Your task to perform on an android device: turn on sleep mode Image 0: 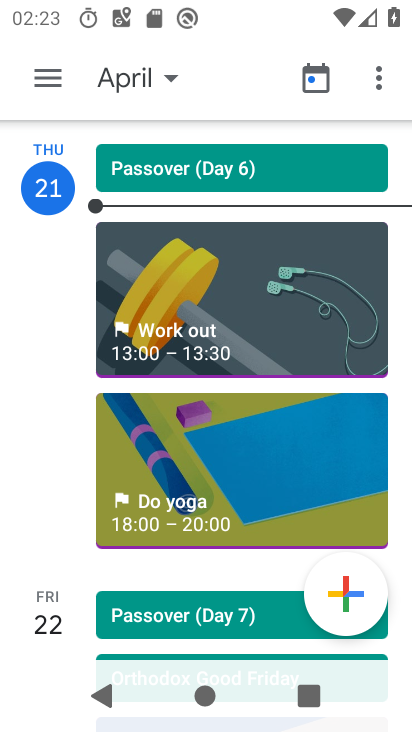
Step 0: drag from (210, 531) to (232, 292)
Your task to perform on an android device: turn on sleep mode Image 1: 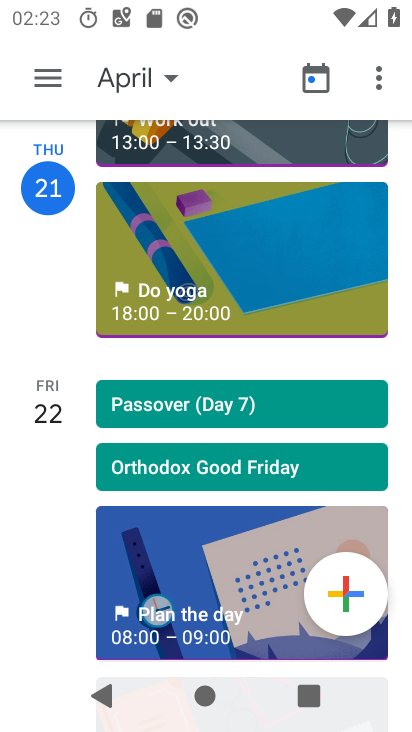
Step 1: drag from (228, 361) to (255, 125)
Your task to perform on an android device: turn on sleep mode Image 2: 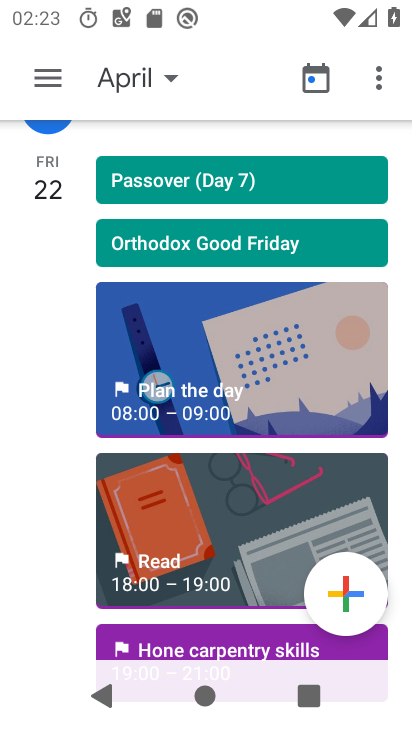
Step 2: drag from (230, 615) to (268, 233)
Your task to perform on an android device: turn on sleep mode Image 3: 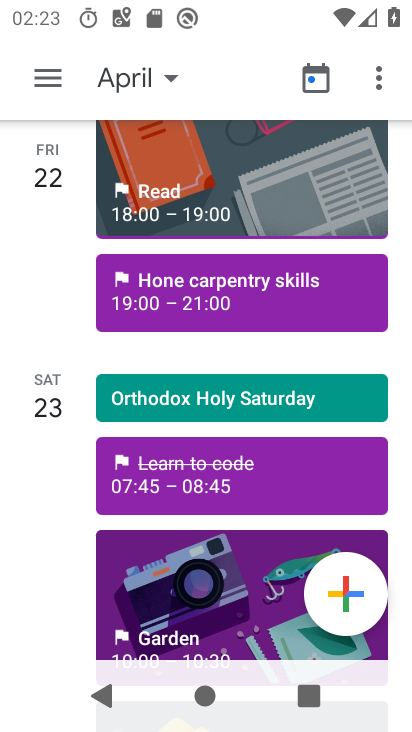
Step 3: drag from (242, 607) to (204, 324)
Your task to perform on an android device: turn on sleep mode Image 4: 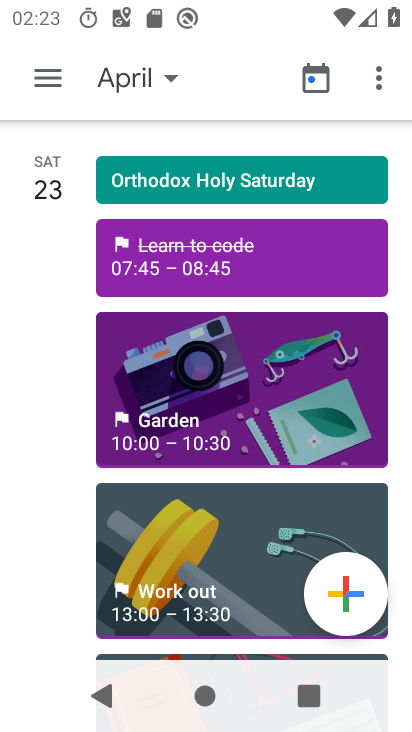
Step 4: drag from (206, 576) to (205, 374)
Your task to perform on an android device: turn on sleep mode Image 5: 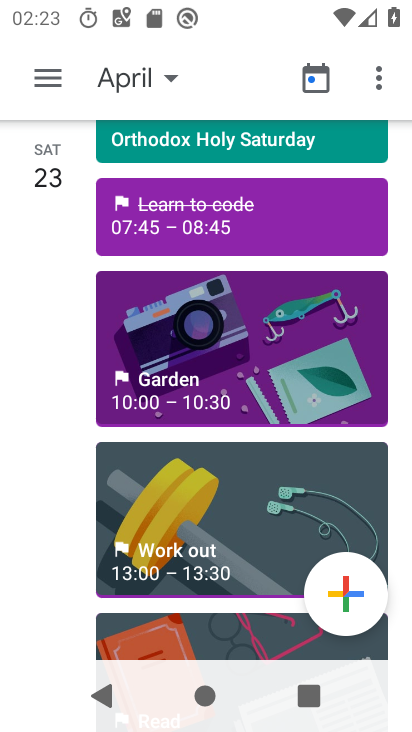
Step 5: press home button
Your task to perform on an android device: turn on sleep mode Image 6: 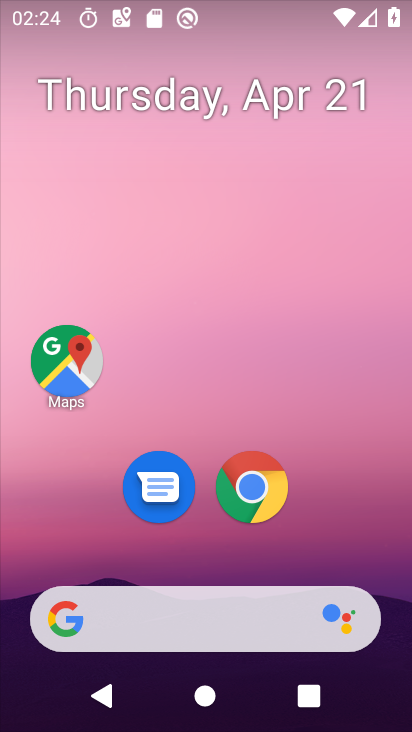
Step 6: drag from (230, 564) to (221, 368)
Your task to perform on an android device: turn on sleep mode Image 7: 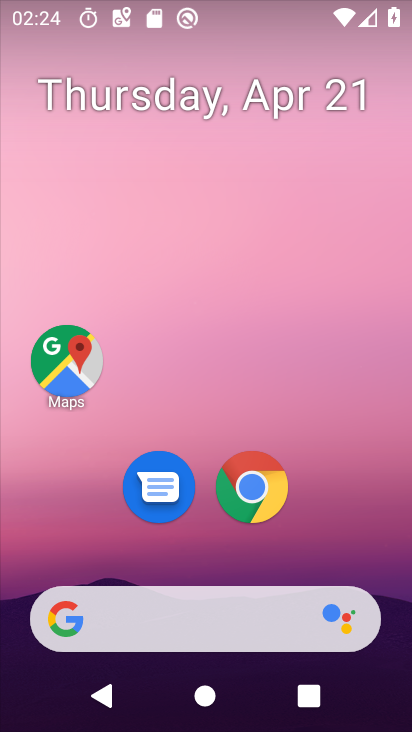
Step 7: drag from (211, 505) to (283, 142)
Your task to perform on an android device: turn on sleep mode Image 8: 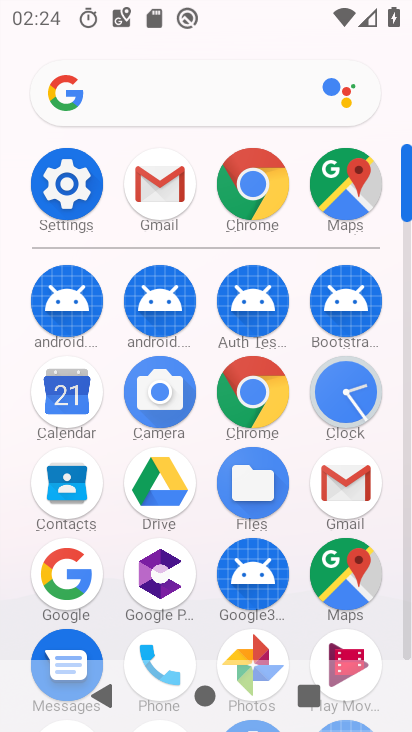
Step 8: click (73, 181)
Your task to perform on an android device: turn on sleep mode Image 9: 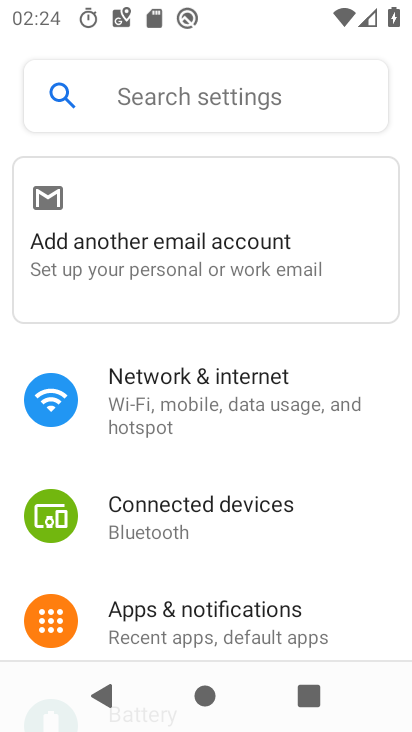
Step 9: drag from (218, 446) to (249, 224)
Your task to perform on an android device: turn on sleep mode Image 10: 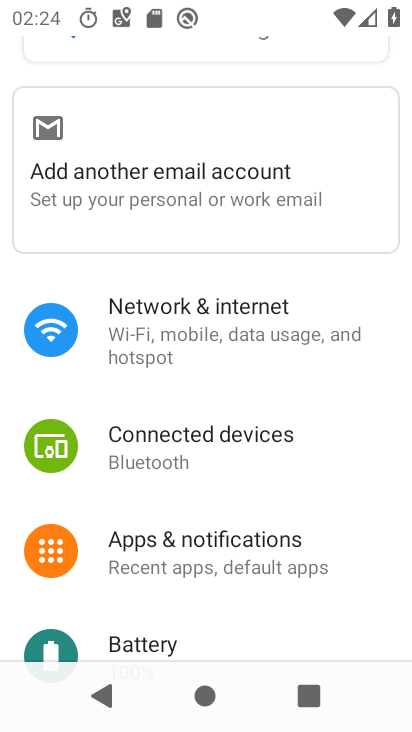
Step 10: drag from (192, 568) to (247, 196)
Your task to perform on an android device: turn on sleep mode Image 11: 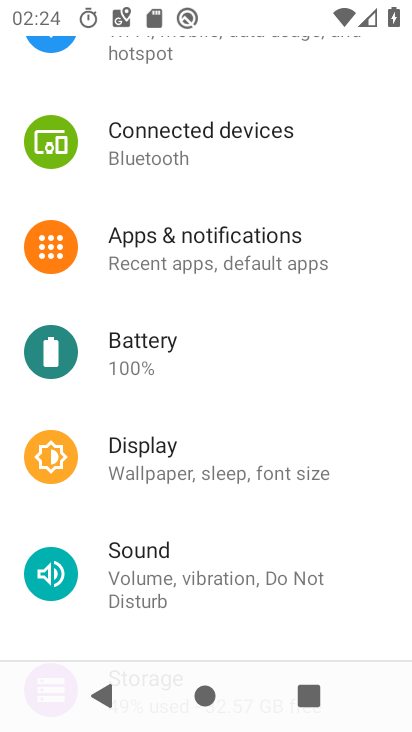
Step 11: click (184, 472)
Your task to perform on an android device: turn on sleep mode Image 12: 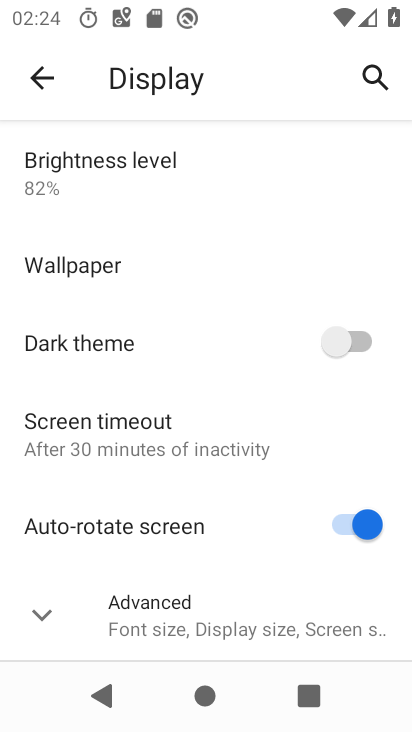
Step 12: click (182, 409)
Your task to perform on an android device: turn on sleep mode Image 13: 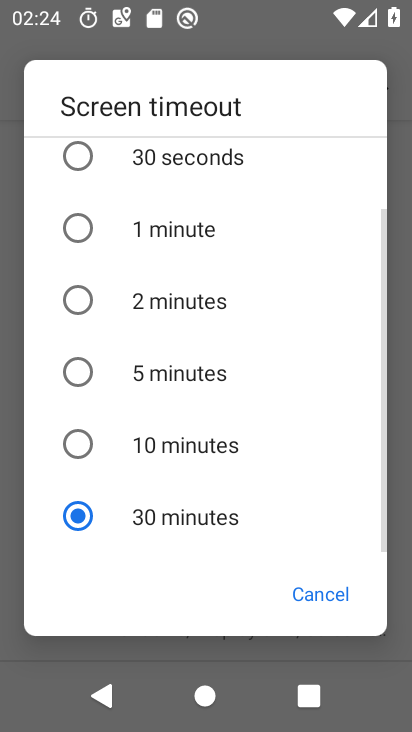
Step 13: task complete